Your task to perform on an android device: open app "Expedia: Hotels, Flights & Car" (install if not already installed) Image 0: 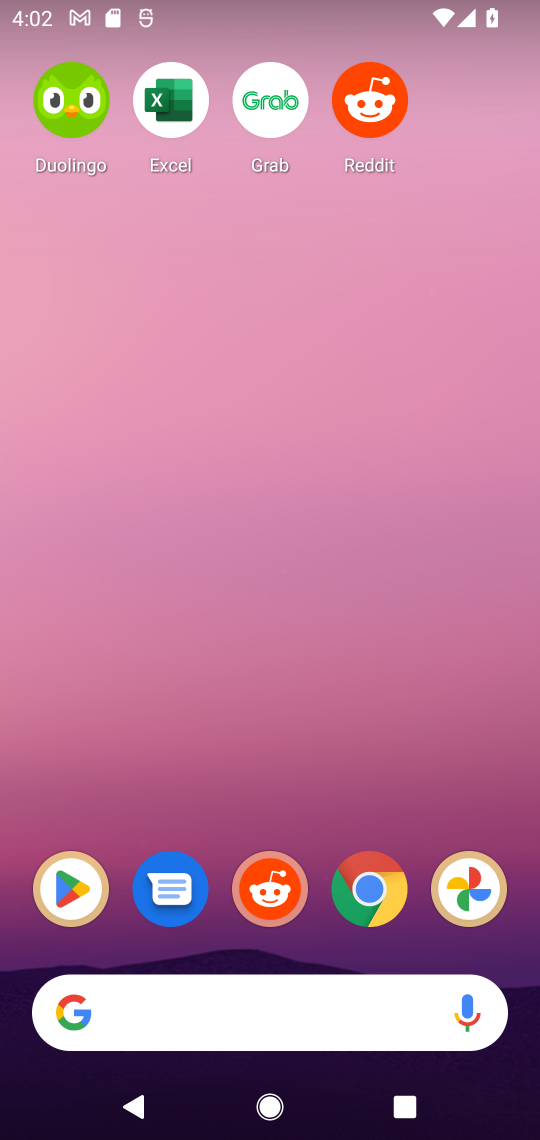
Step 0: press home button
Your task to perform on an android device: open app "Expedia: Hotels, Flights & Car" (install if not already installed) Image 1: 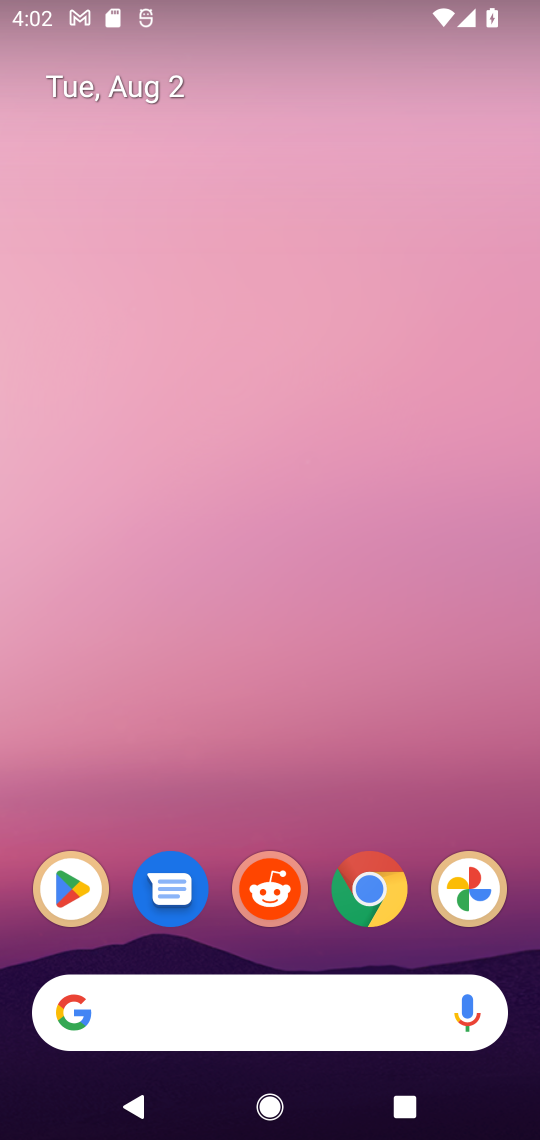
Step 1: drag from (411, 773) to (414, 97)
Your task to perform on an android device: open app "Expedia: Hotels, Flights & Car" (install if not already installed) Image 2: 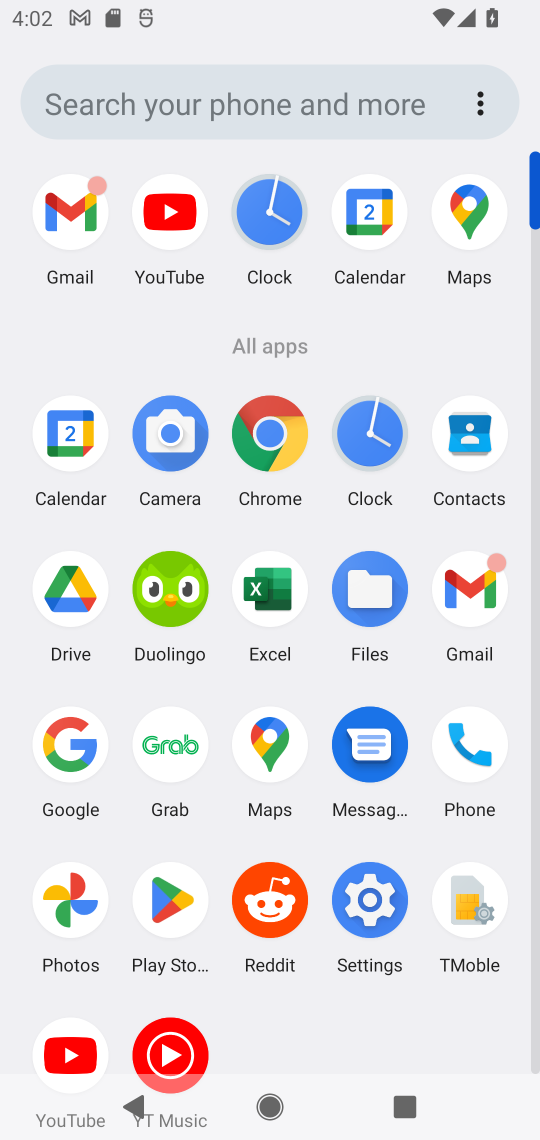
Step 2: click (169, 914)
Your task to perform on an android device: open app "Expedia: Hotels, Flights & Car" (install if not already installed) Image 3: 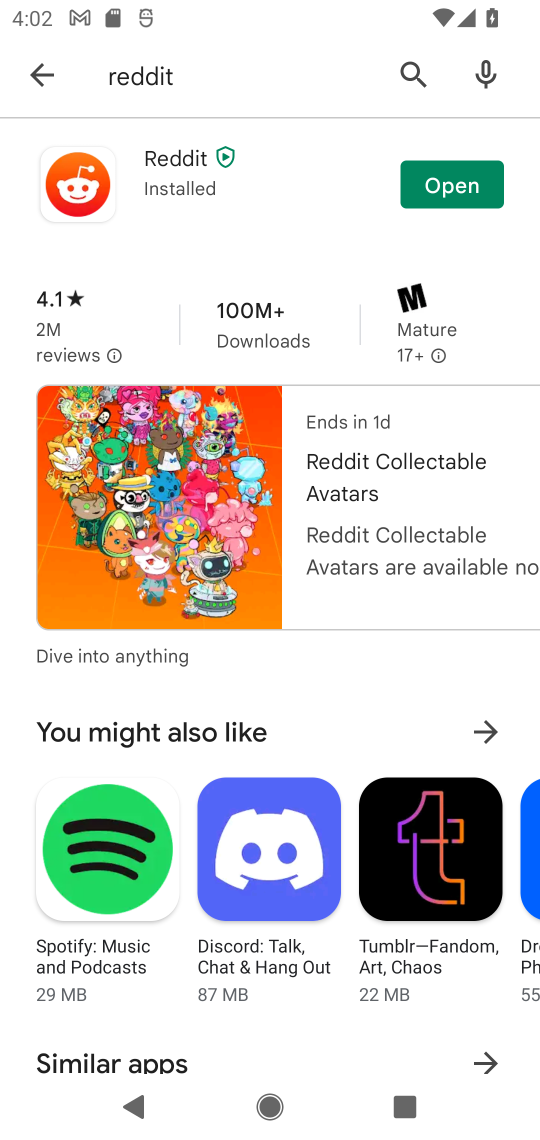
Step 3: click (414, 66)
Your task to perform on an android device: open app "Expedia: Hotels, Flights & Car" (install if not already installed) Image 4: 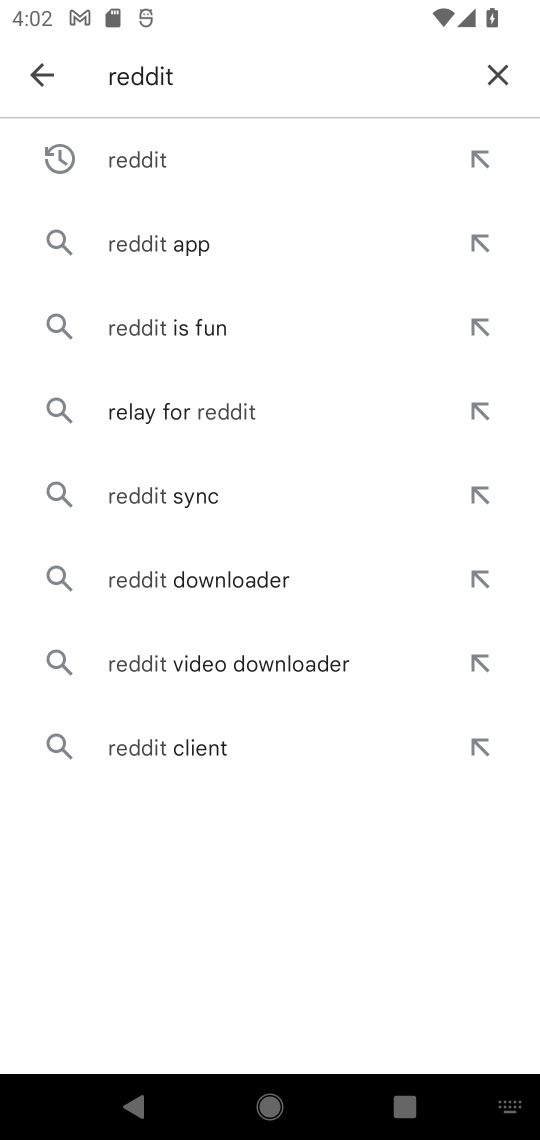
Step 4: click (495, 68)
Your task to perform on an android device: open app "Expedia: Hotels, Flights & Car" (install if not already installed) Image 5: 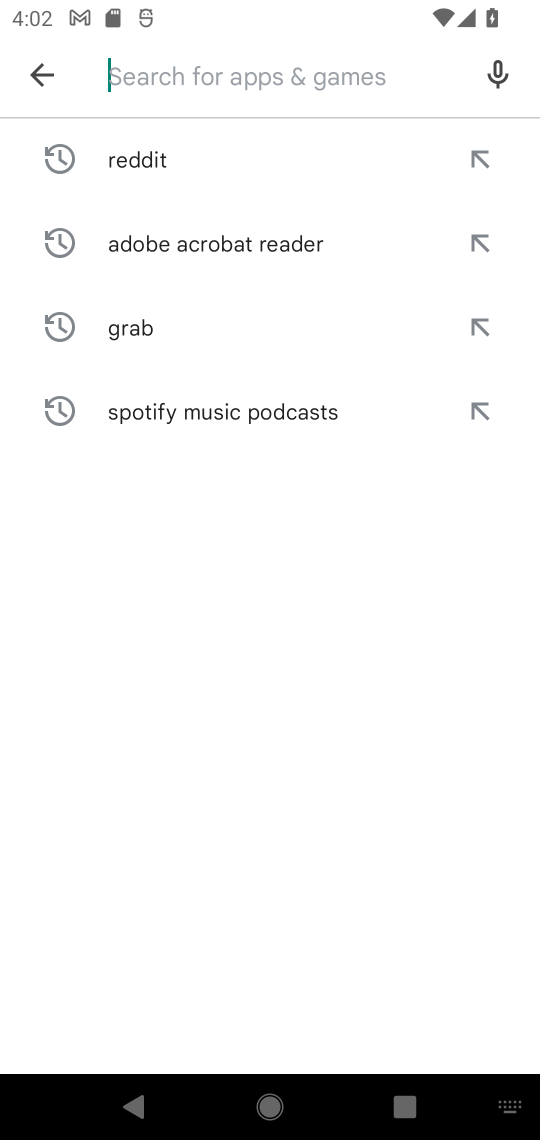
Step 5: type "Expedia: Hotels, Flights & Car"
Your task to perform on an android device: open app "Expedia: Hotels, Flights & Car" (install if not already installed) Image 6: 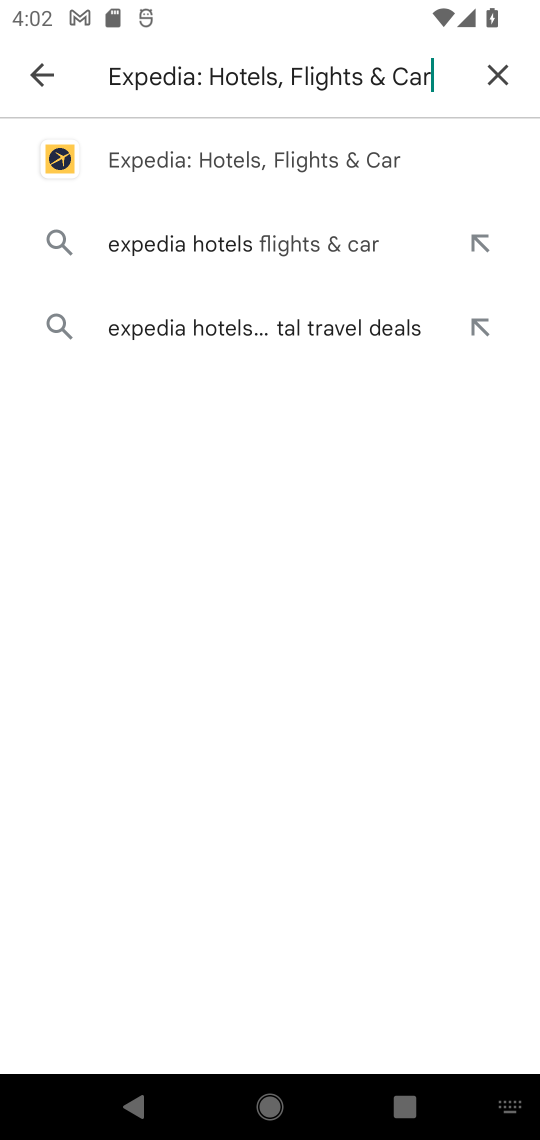
Step 6: click (331, 165)
Your task to perform on an android device: open app "Expedia: Hotels, Flights & Car" (install if not already installed) Image 7: 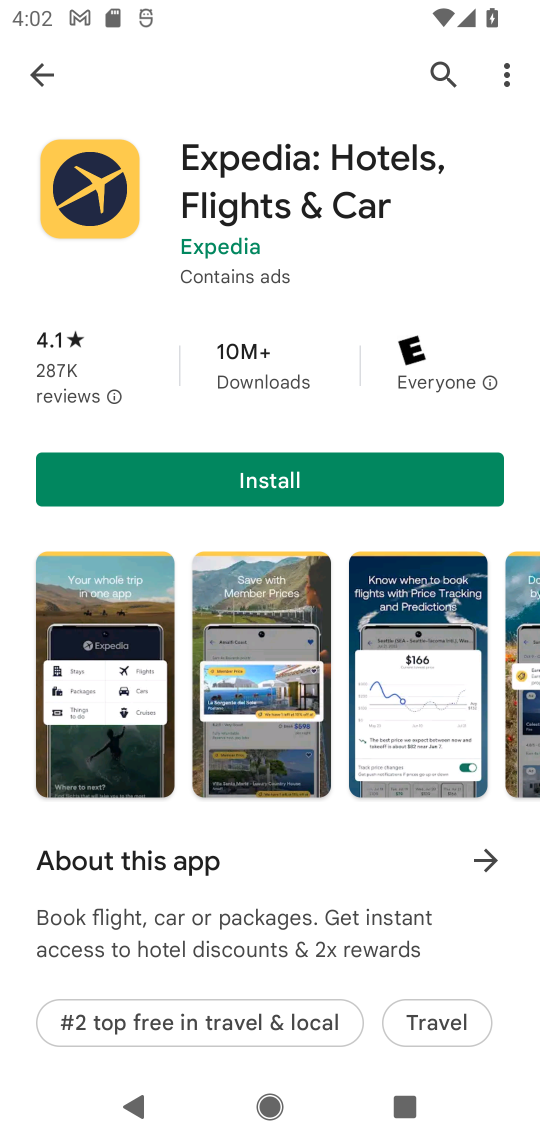
Step 7: click (414, 491)
Your task to perform on an android device: open app "Expedia: Hotels, Flights & Car" (install if not already installed) Image 8: 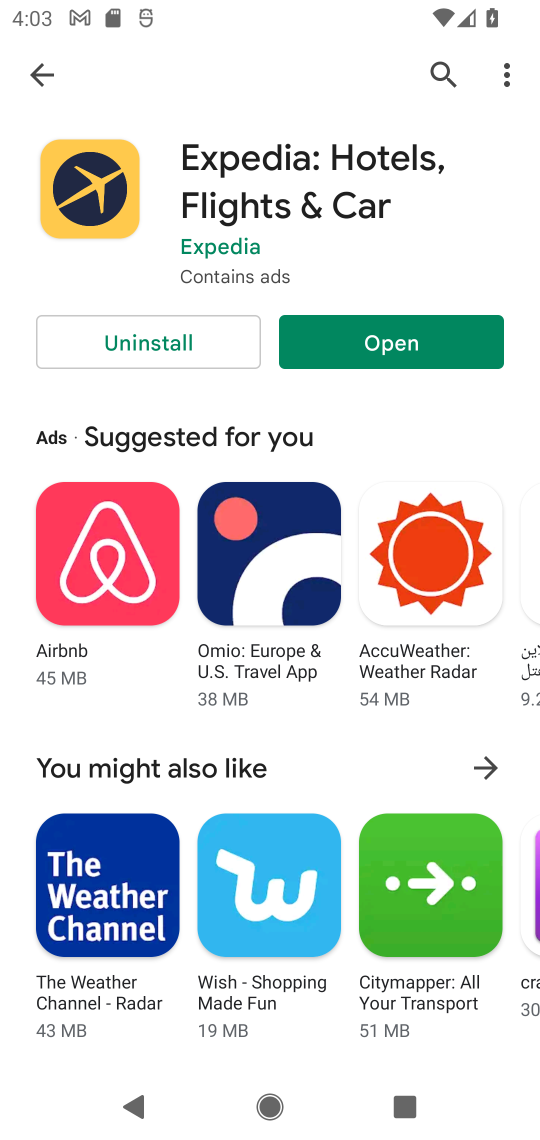
Step 8: click (455, 337)
Your task to perform on an android device: open app "Expedia: Hotels, Flights & Car" (install if not already installed) Image 9: 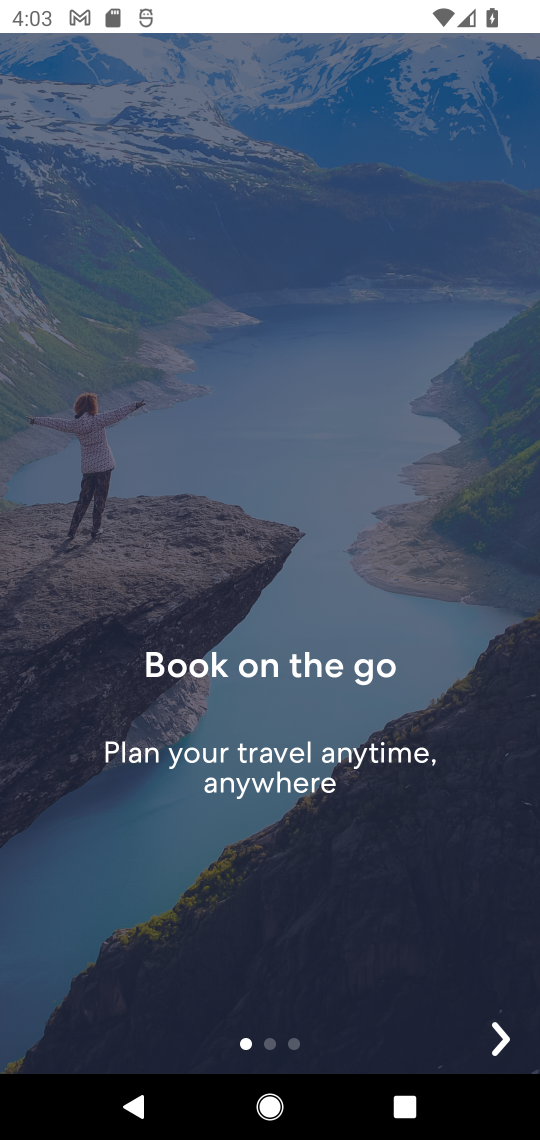
Step 9: task complete